Your task to perform on an android device: Show me popular games on the Play Store Image 0: 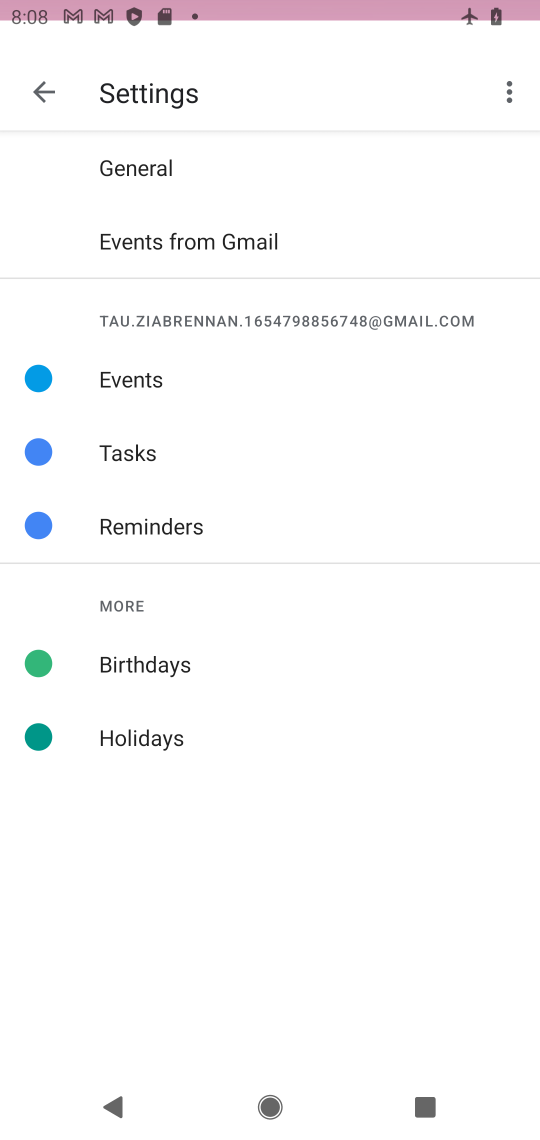
Step 0: press home button
Your task to perform on an android device: Show me popular games on the Play Store Image 1: 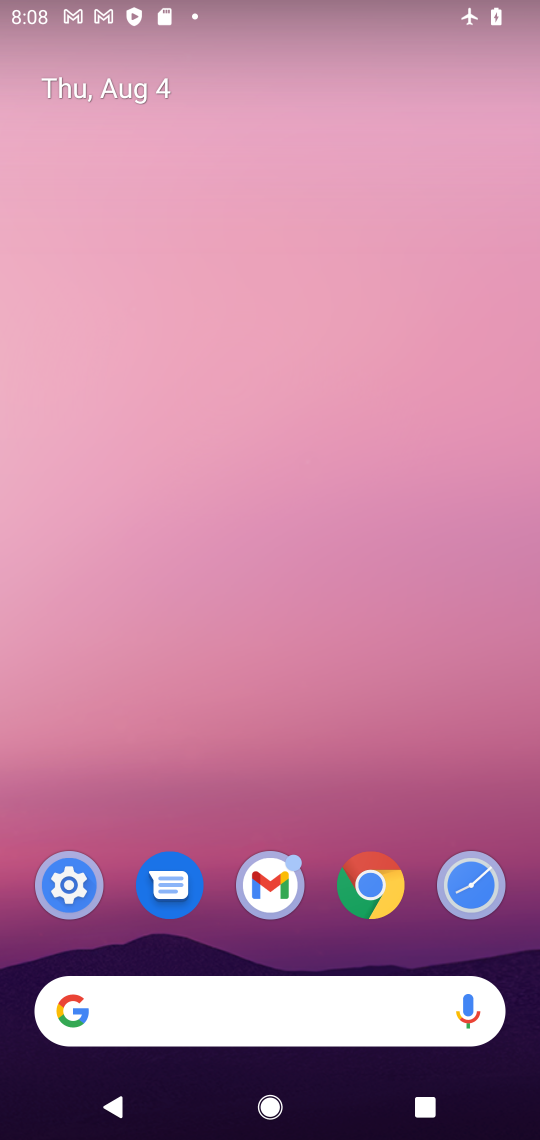
Step 1: press home button
Your task to perform on an android device: Show me popular games on the Play Store Image 2: 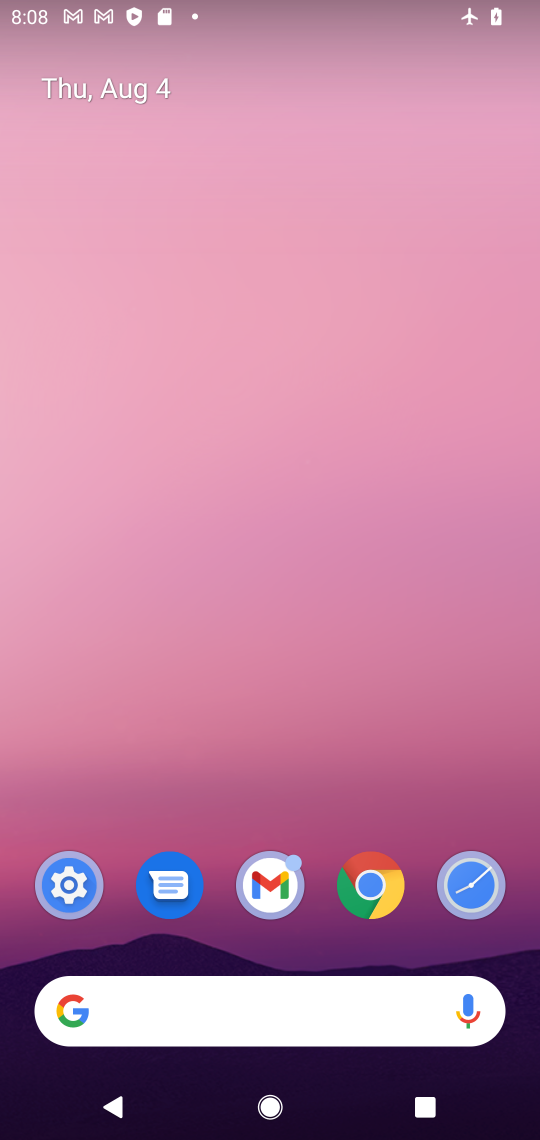
Step 2: drag from (311, 936) to (301, 304)
Your task to perform on an android device: Show me popular games on the Play Store Image 3: 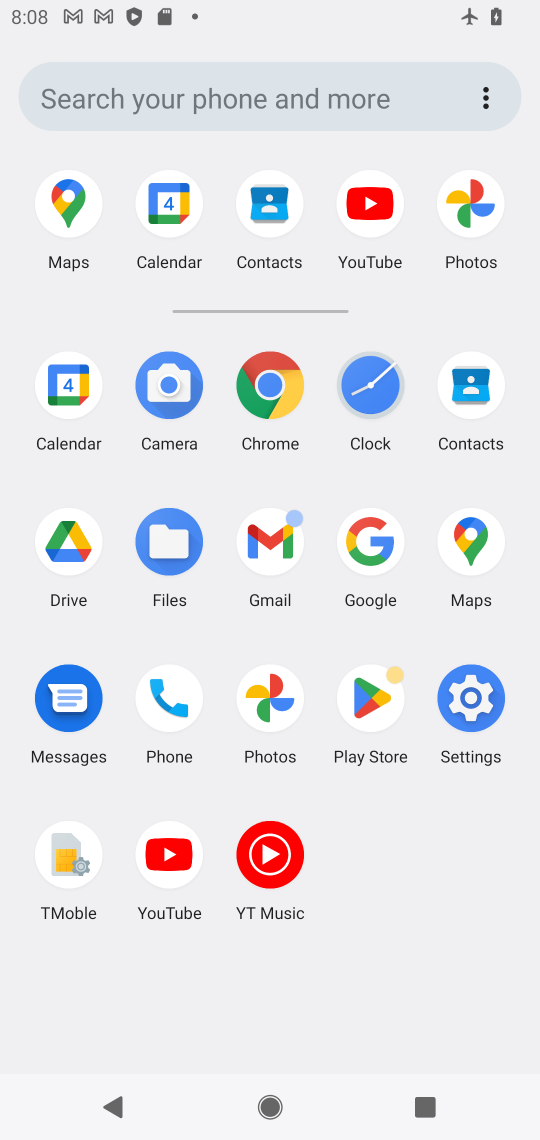
Step 3: click (369, 739)
Your task to perform on an android device: Show me popular games on the Play Store Image 4: 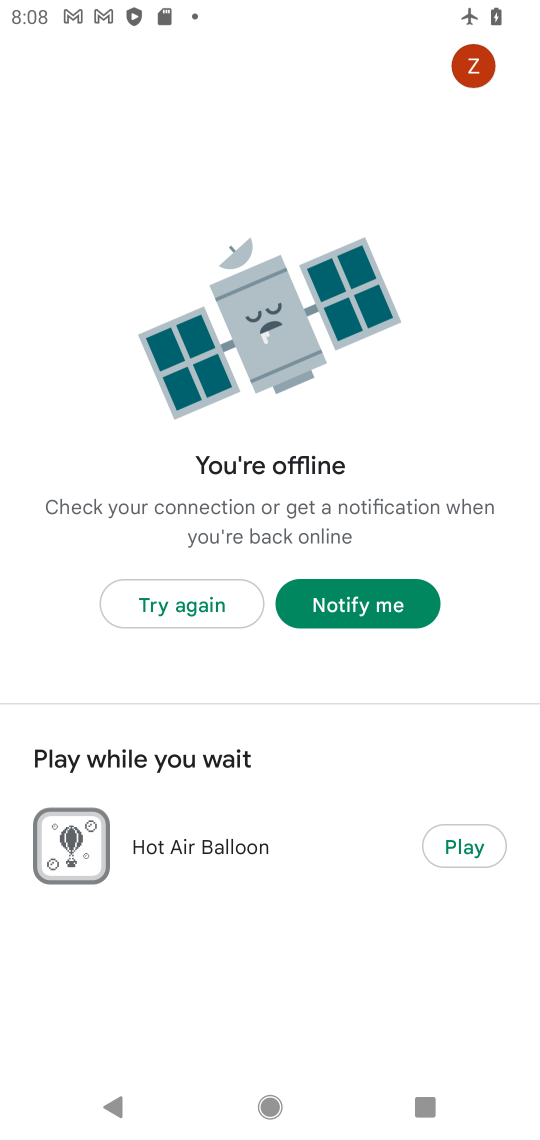
Step 4: drag from (504, 15) to (418, 1011)
Your task to perform on an android device: Show me popular games on the Play Store Image 5: 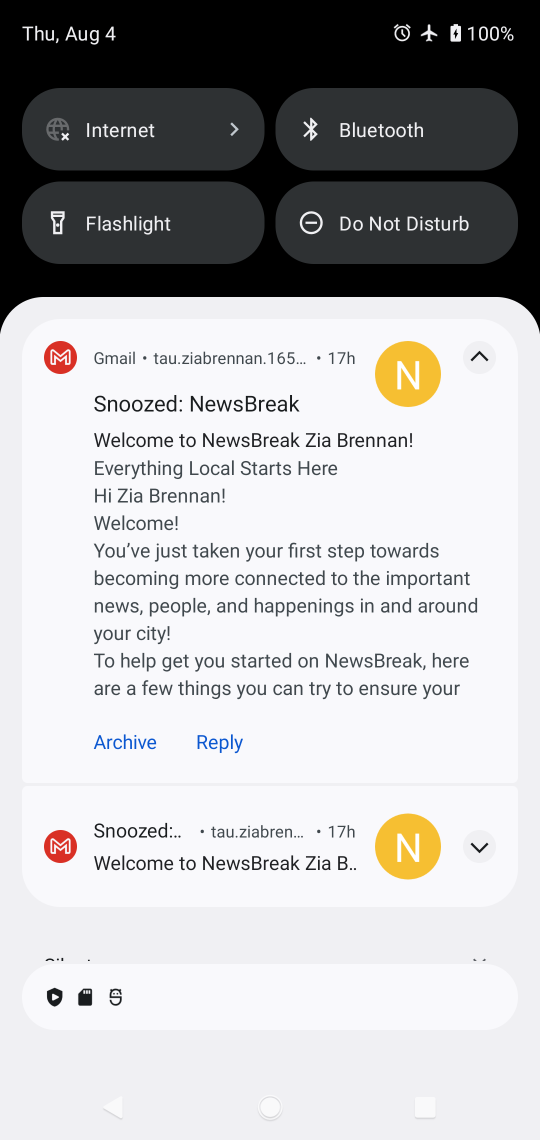
Step 5: drag from (311, 313) to (313, 1105)
Your task to perform on an android device: Show me popular games on the Play Store Image 6: 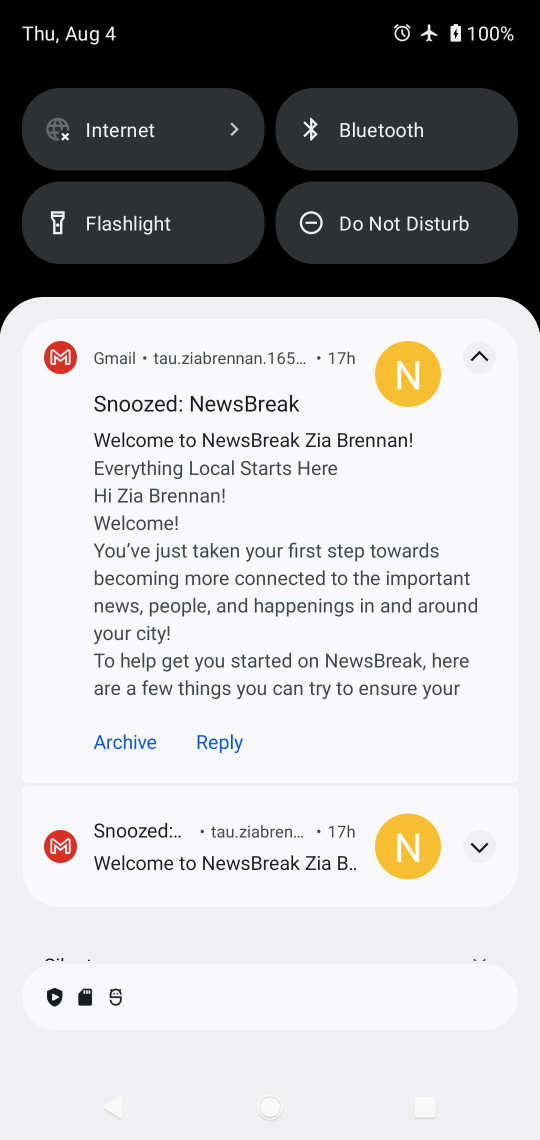
Step 6: drag from (280, 329) to (261, 1131)
Your task to perform on an android device: Show me popular games on the Play Store Image 7: 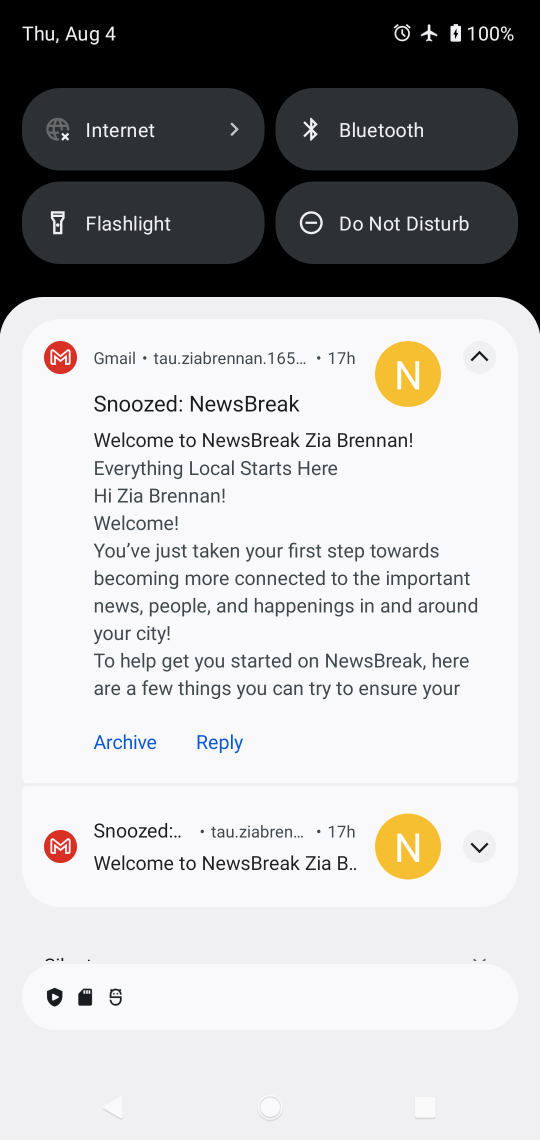
Step 7: drag from (262, 280) to (255, 1107)
Your task to perform on an android device: Show me popular games on the Play Store Image 8: 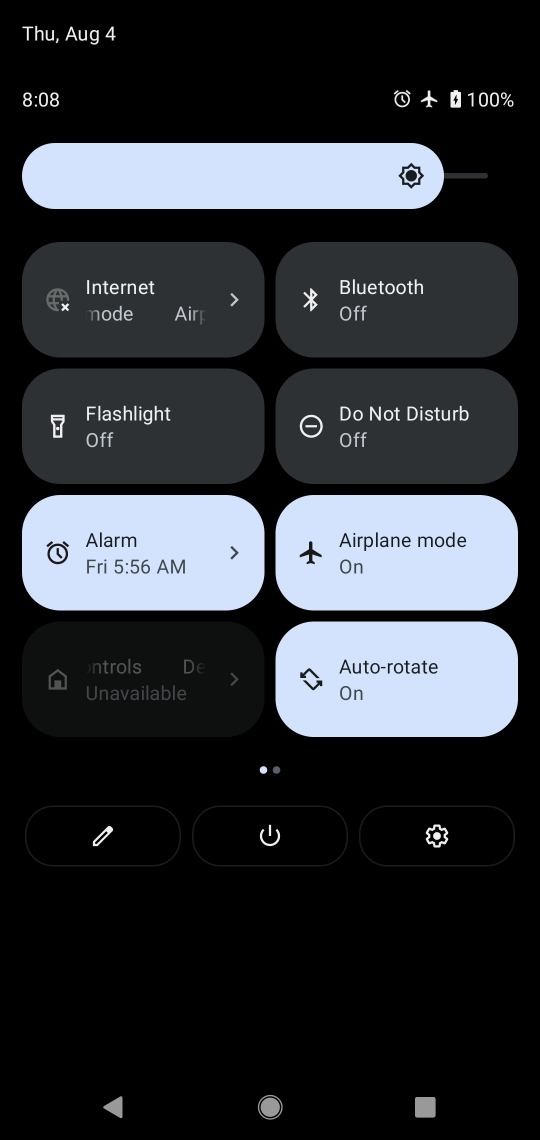
Step 8: click (353, 551)
Your task to perform on an android device: Show me popular games on the Play Store Image 9: 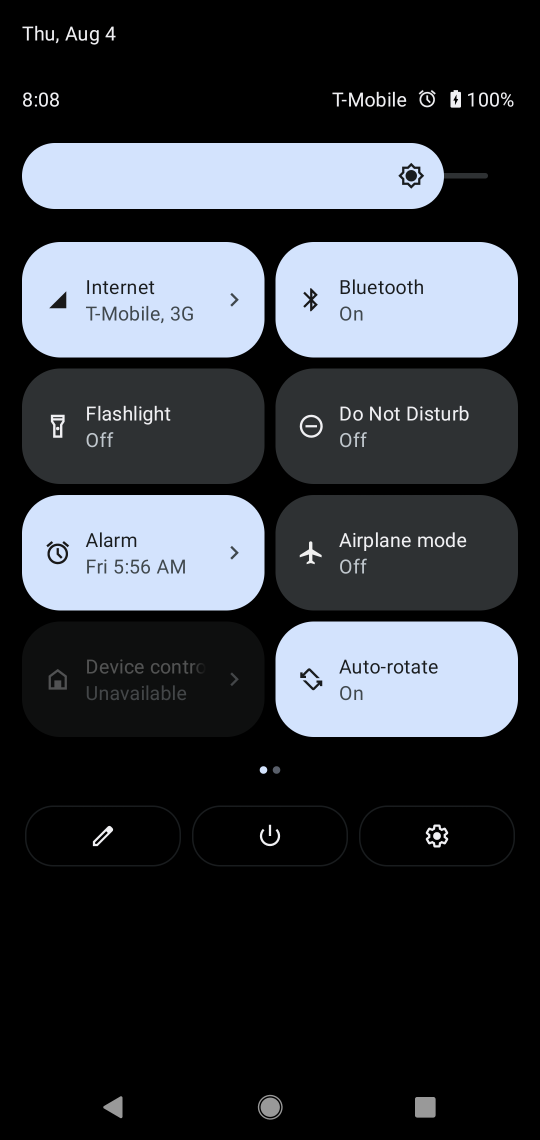
Step 9: press back button
Your task to perform on an android device: Show me popular games on the Play Store Image 10: 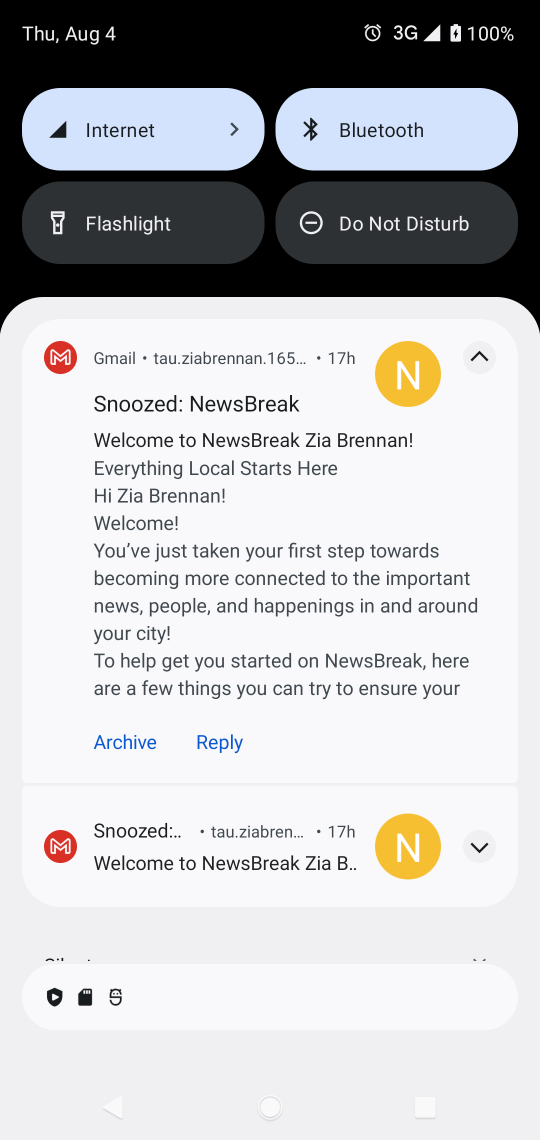
Step 10: press back button
Your task to perform on an android device: Show me popular games on the Play Store Image 11: 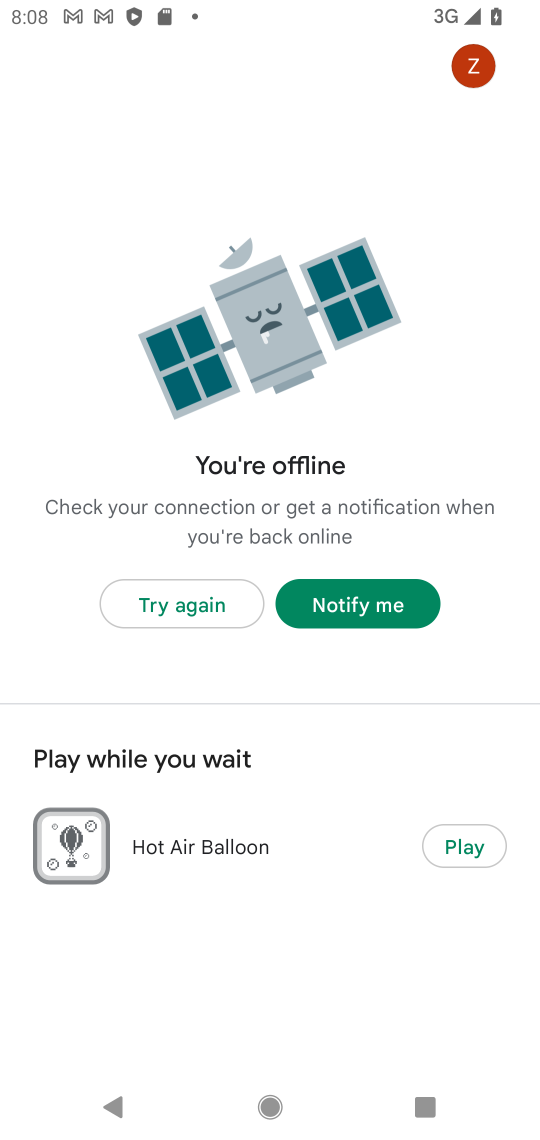
Step 11: click (126, 610)
Your task to perform on an android device: Show me popular games on the Play Store Image 12: 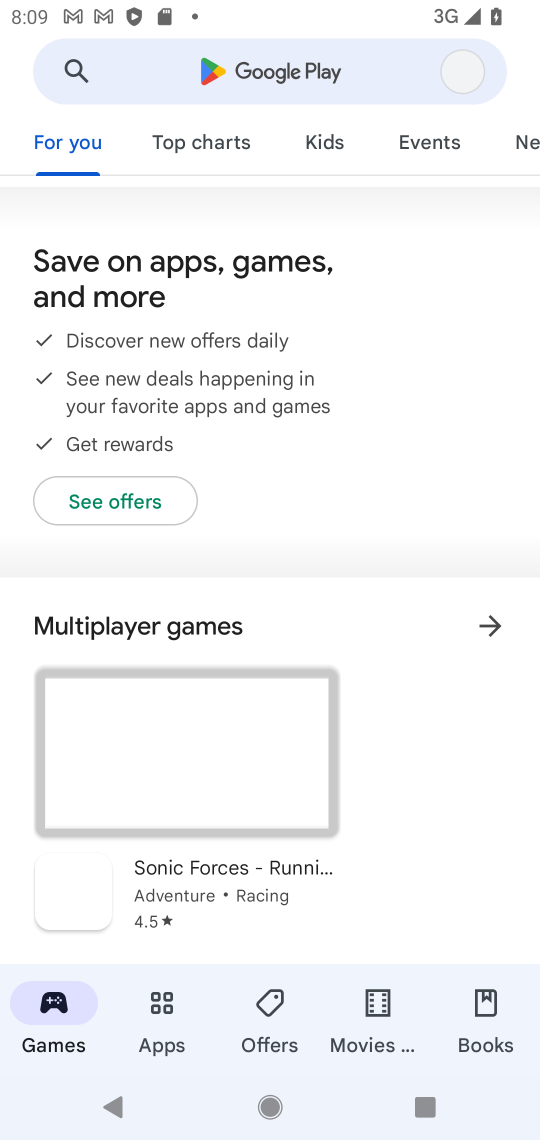
Step 12: click (310, 65)
Your task to perform on an android device: Show me popular games on the Play Store Image 13: 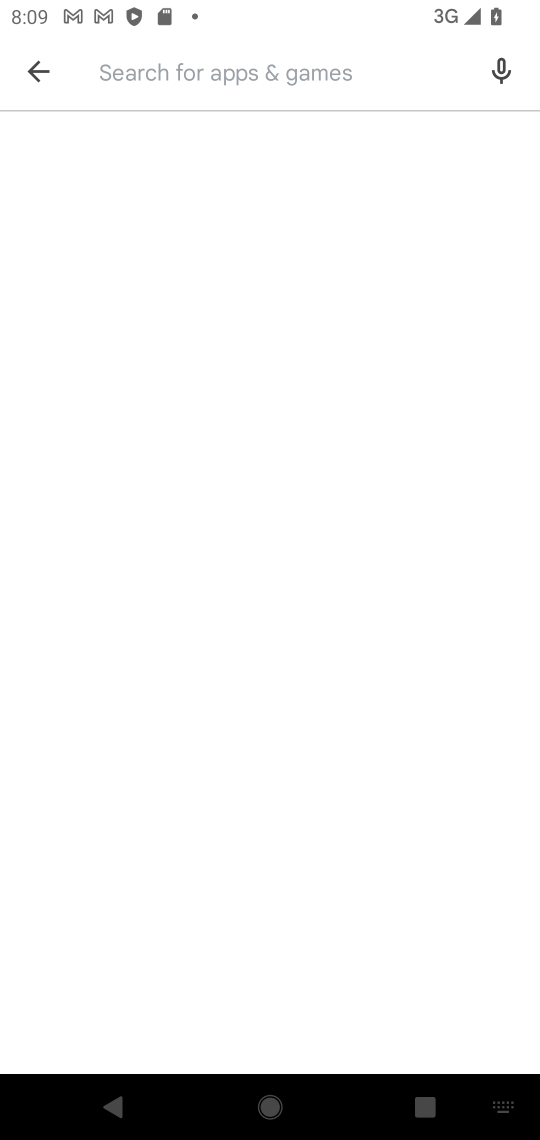
Step 13: type "popular games on the Play Store"
Your task to perform on an android device: Show me popular games on the Play Store Image 14: 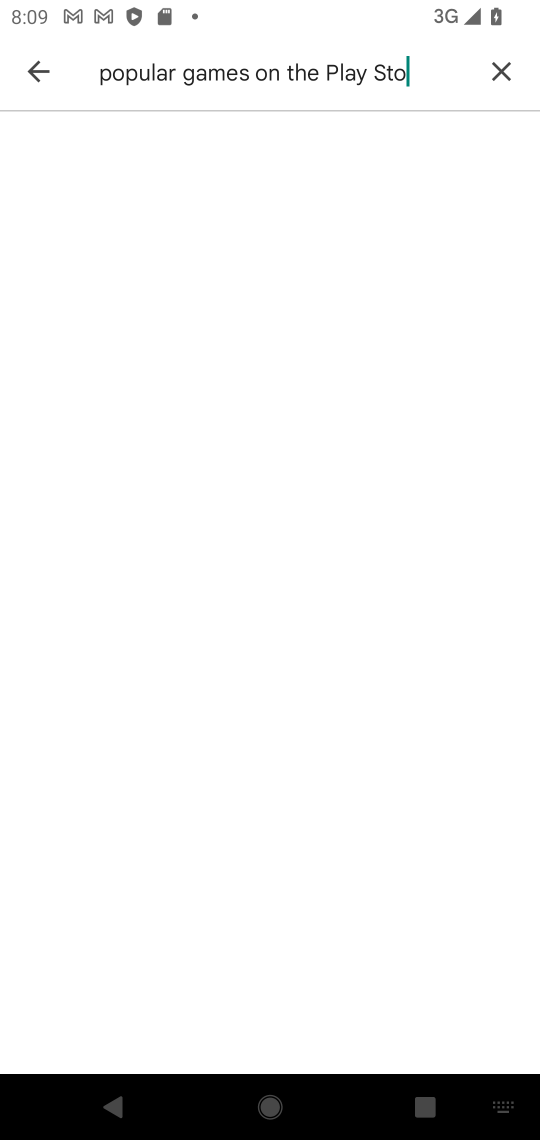
Step 14: type ""
Your task to perform on an android device: Show me popular games on the Play Store Image 15: 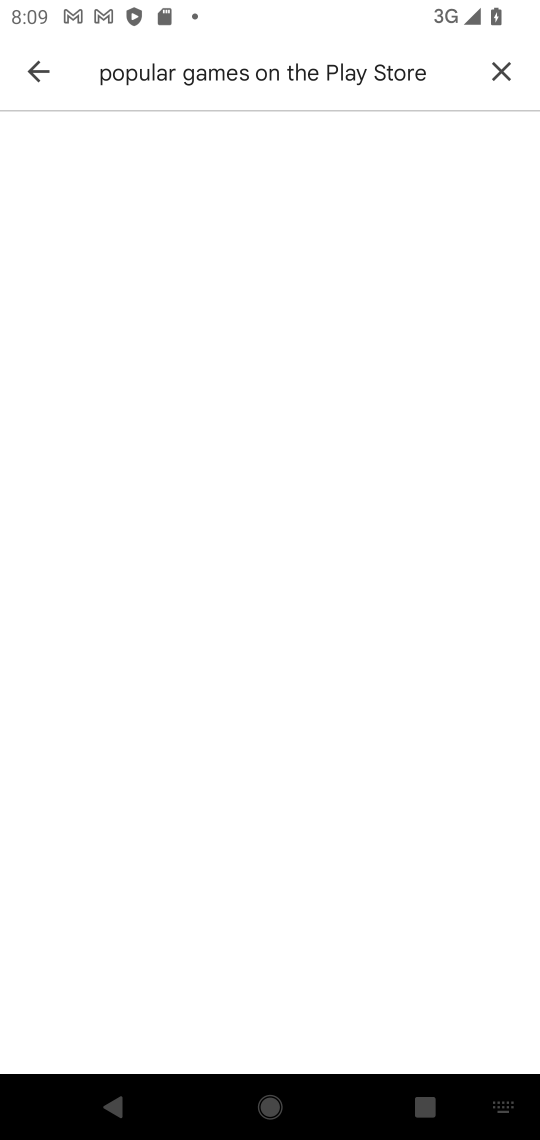
Step 15: click (491, 73)
Your task to perform on an android device: Show me popular games on the Play Store Image 16: 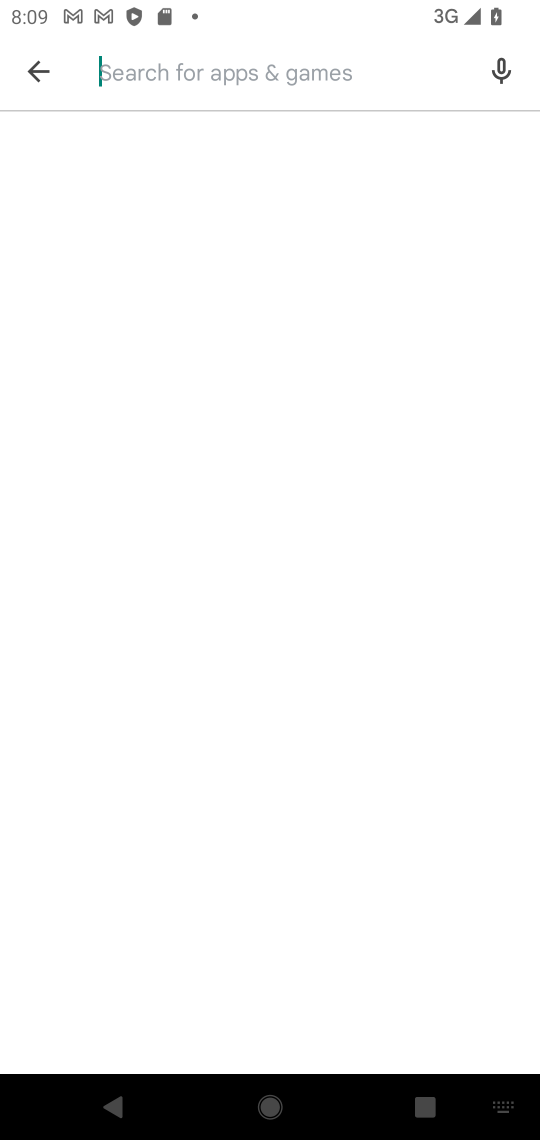
Step 16: type "popular games "
Your task to perform on an android device: Show me popular games on the Play Store Image 17: 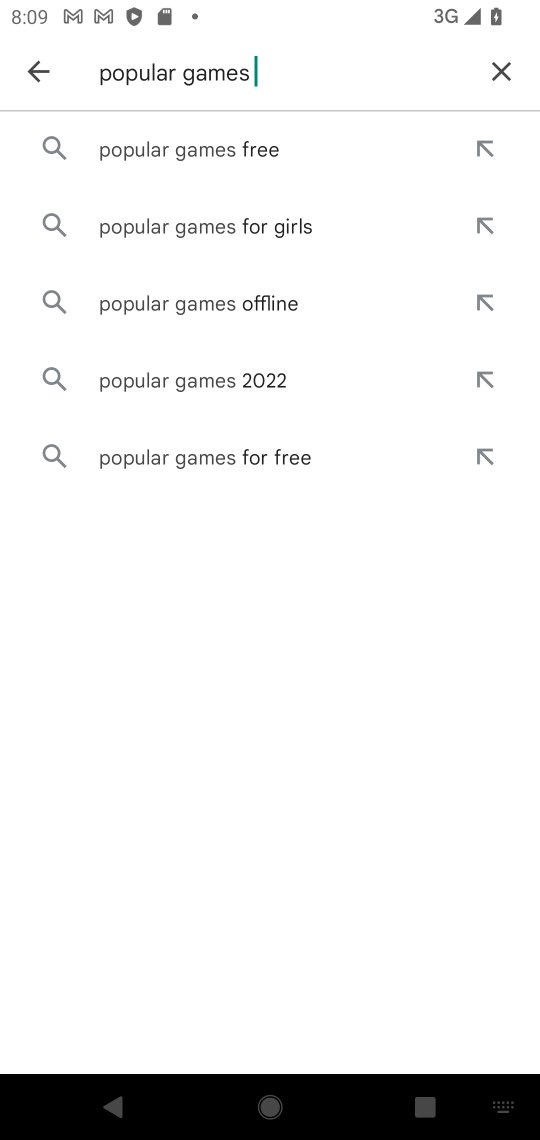
Step 17: click (223, 143)
Your task to perform on an android device: Show me popular games on the Play Store Image 18: 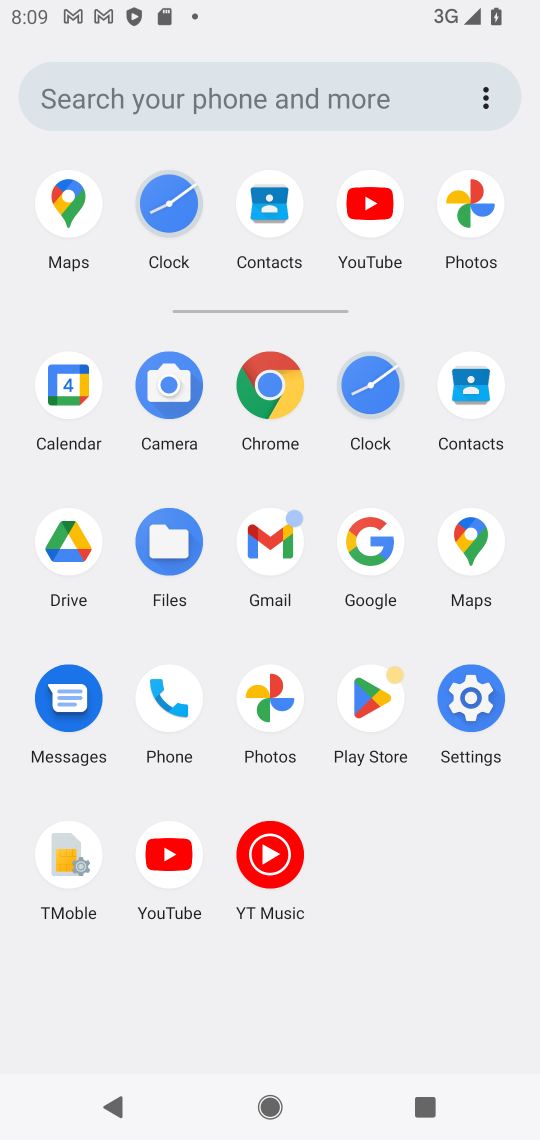
Step 18: click (363, 698)
Your task to perform on an android device: Show me popular games on the Play Store Image 19: 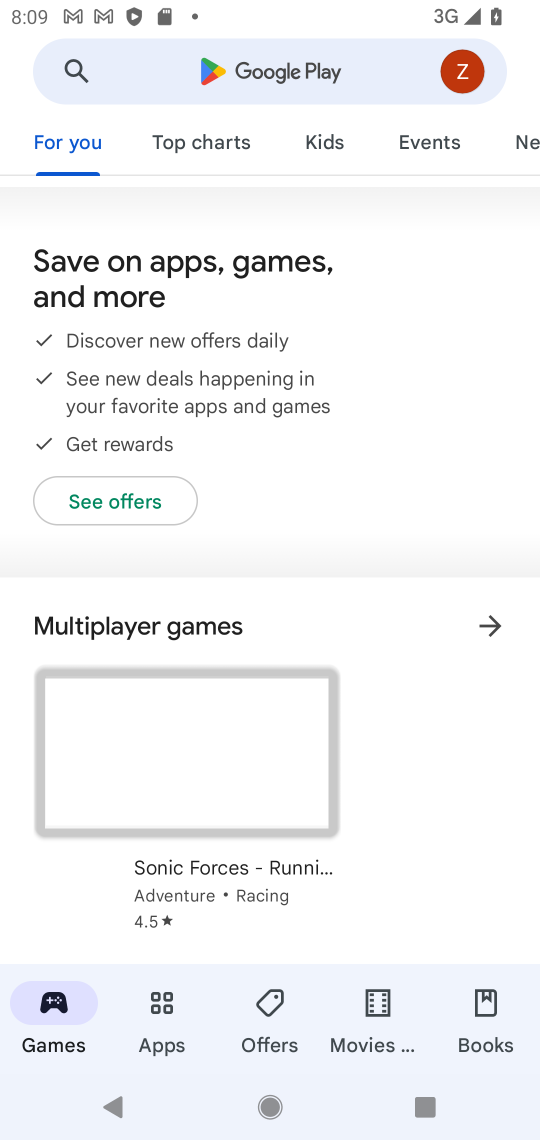
Step 19: click (204, 80)
Your task to perform on an android device: Show me popular games on the Play Store Image 20: 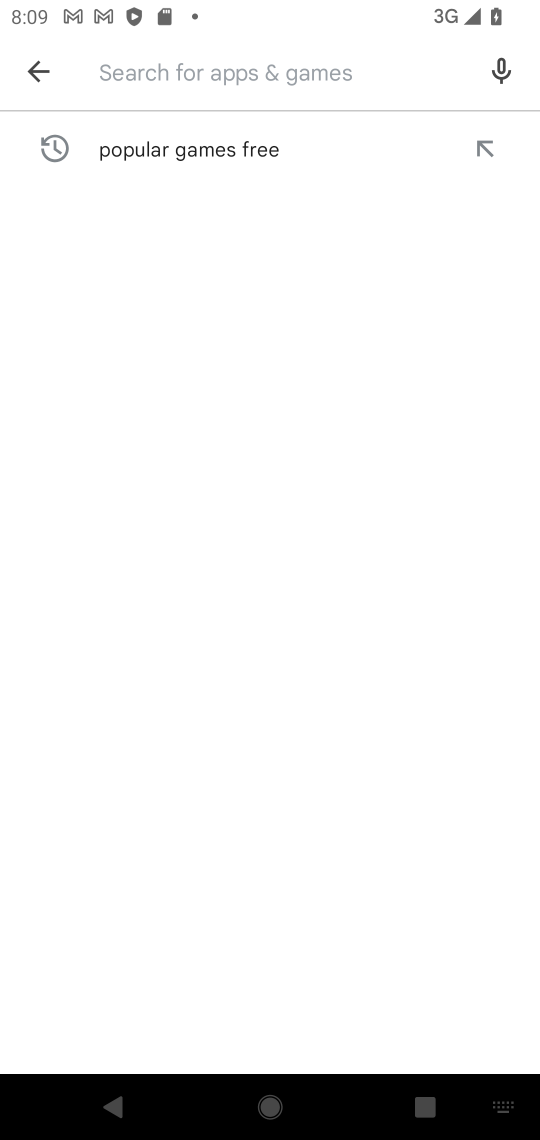
Step 20: type "popular games "
Your task to perform on an android device: Show me popular games on the Play Store Image 21: 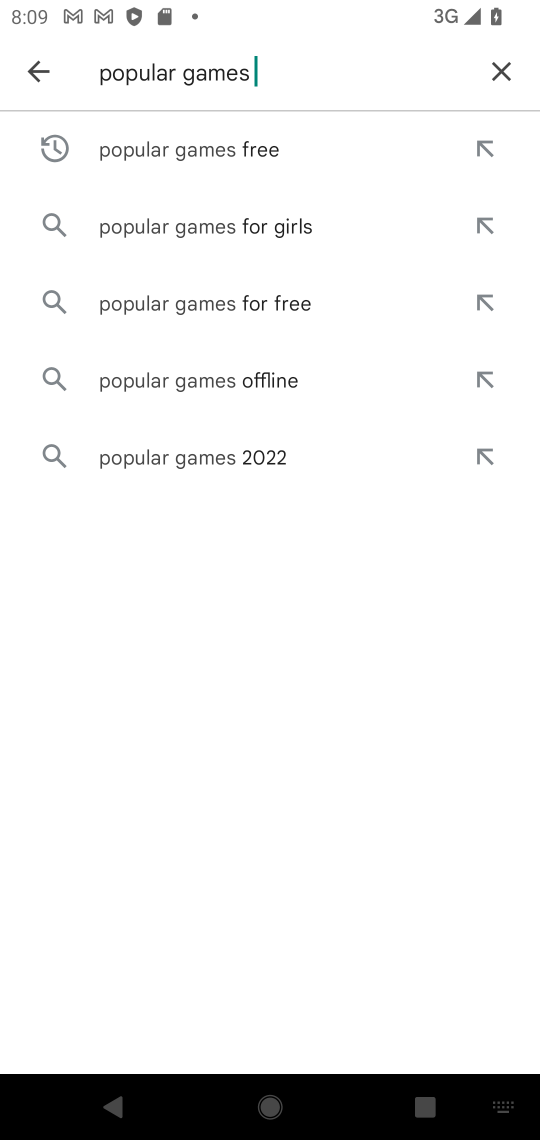
Step 21: click (194, 158)
Your task to perform on an android device: Show me popular games on the Play Store Image 22: 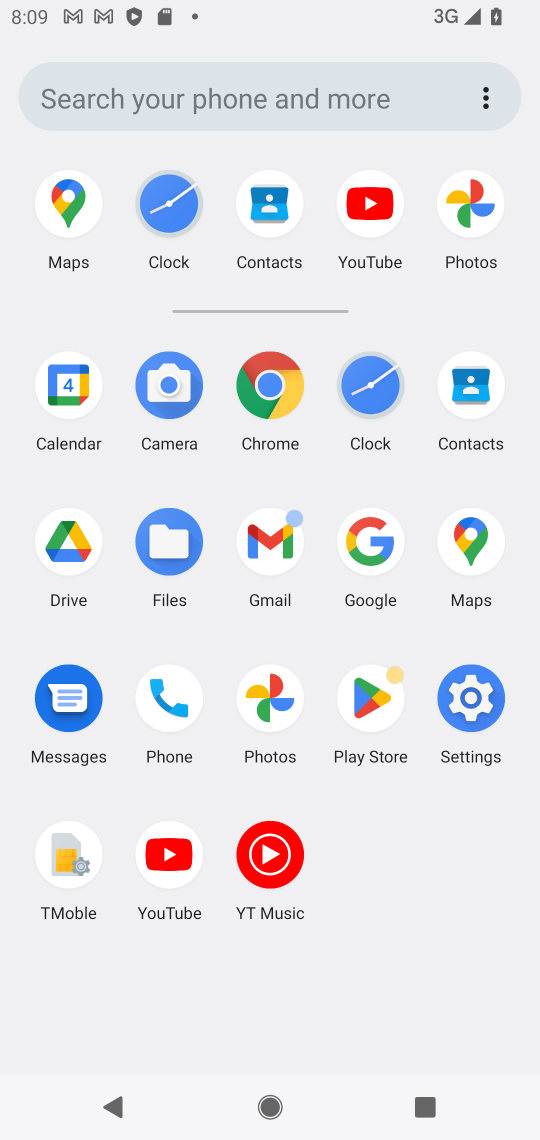
Step 22: task complete